Your task to perform on an android device: turn vacation reply on in the gmail app Image 0: 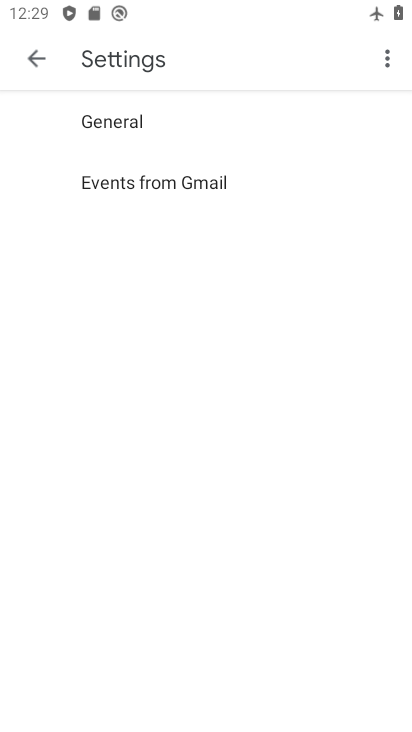
Step 0: press home button
Your task to perform on an android device: turn vacation reply on in the gmail app Image 1: 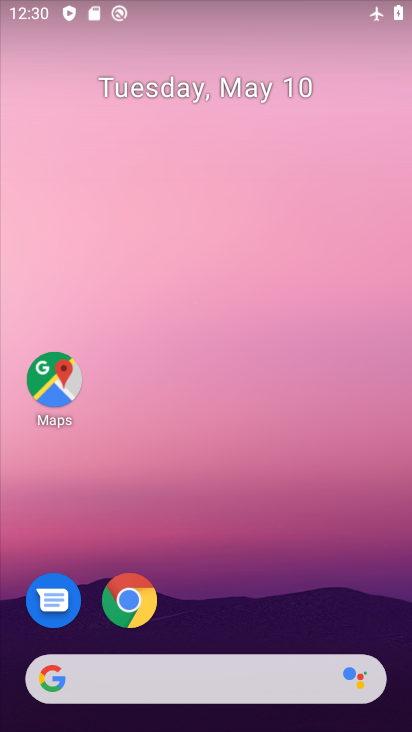
Step 1: drag from (210, 605) to (79, 2)
Your task to perform on an android device: turn vacation reply on in the gmail app Image 2: 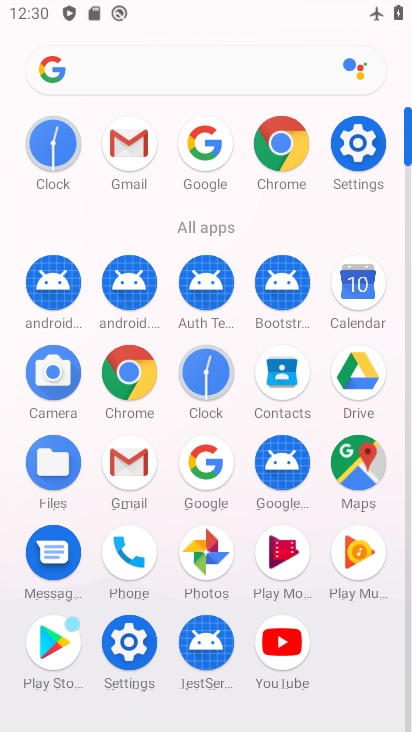
Step 2: click (130, 491)
Your task to perform on an android device: turn vacation reply on in the gmail app Image 3: 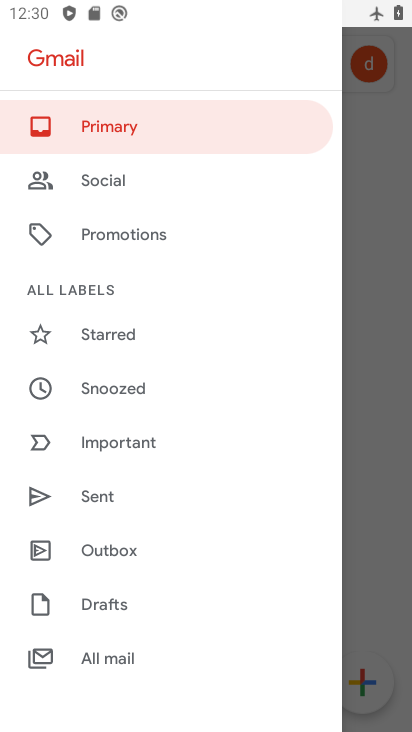
Step 3: drag from (48, 677) to (43, 464)
Your task to perform on an android device: turn vacation reply on in the gmail app Image 4: 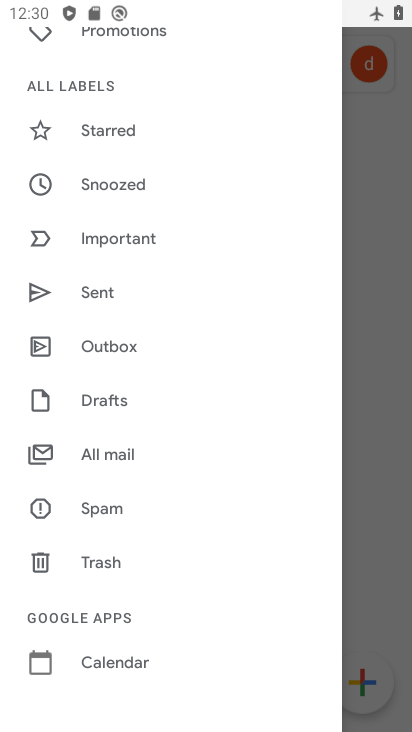
Step 4: drag from (76, 632) to (148, 336)
Your task to perform on an android device: turn vacation reply on in the gmail app Image 5: 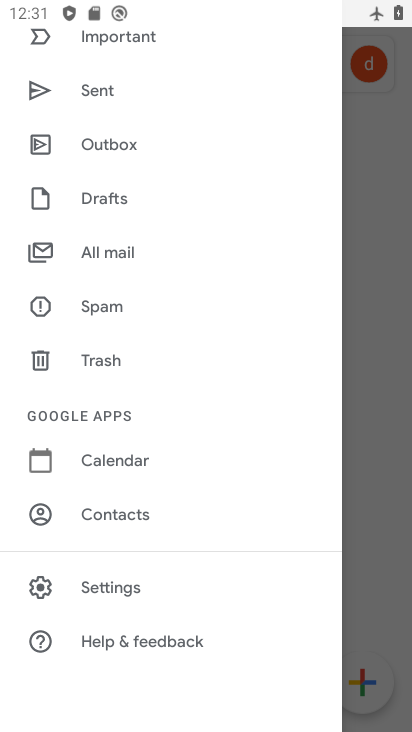
Step 5: click (55, 587)
Your task to perform on an android device: turn vacation reply on in the gmail app Image 6: 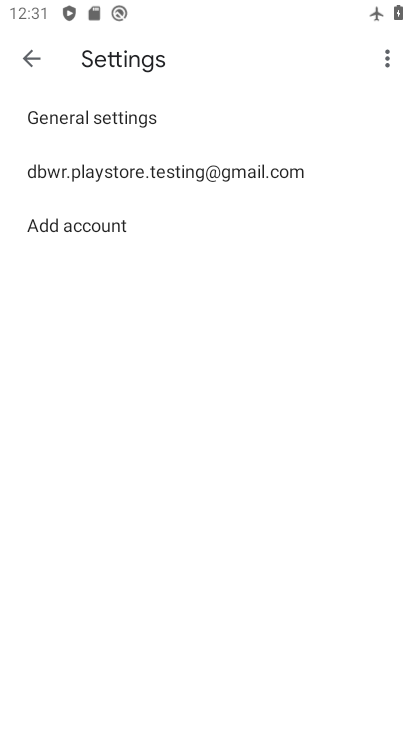
Step 6: click (157, 177)
Your task to perform on an android device: turn vacation reply on in the gmail app Image 7: 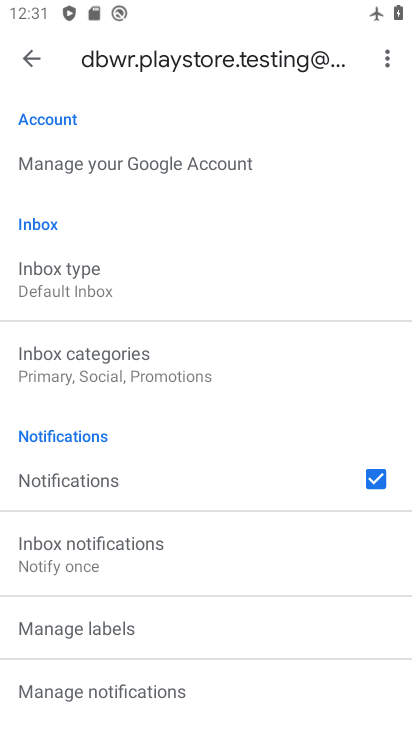
Step 7: drag from (187, 496) to (176, 378)
Your task to perform on an android device: turn vacation reply on in the gmail app Image 8: 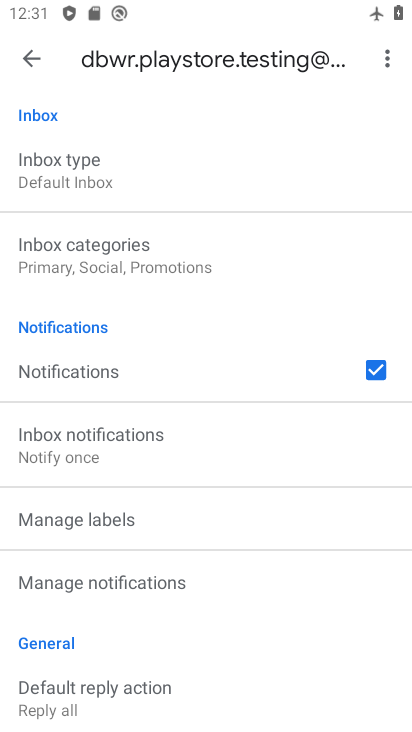
Step 8: drag from (269, 584) to (337, 83)
Your task to perform on an android device: turn vacation reply on in the gmail app Image 9: 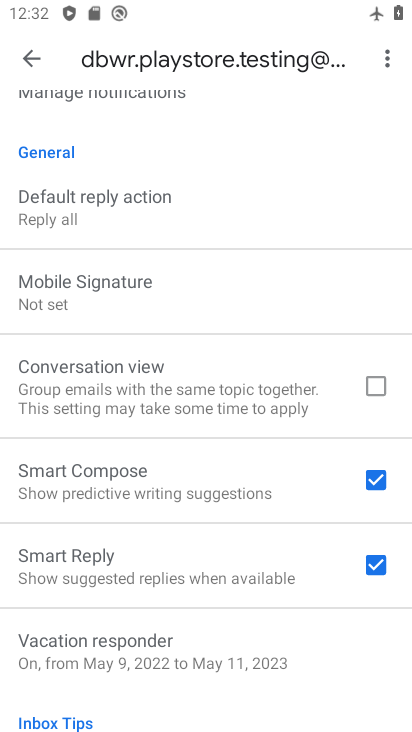
Step 9: click (216, 633)
Your task to perform on an android device: turn vacation reply on in the gmail app Image 10: 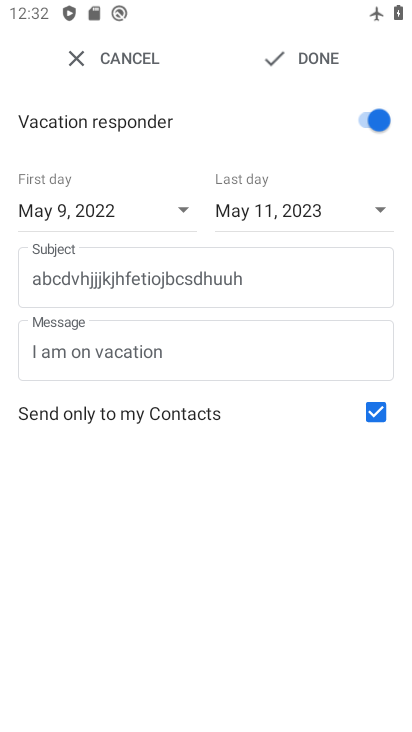
Step 10: task complete